Your task to perform on an android device: turn on wifi Image 0: 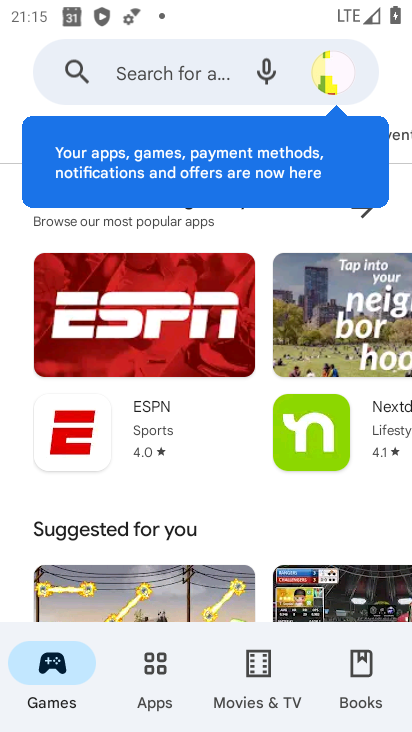
Step 0: press home button
Your task to perform on an android device: turn on wifi Image 1: 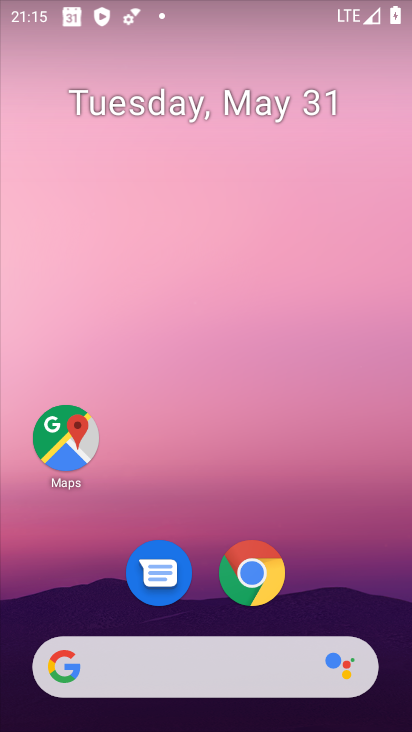
Step 1: drag from (353, 538) to (268, 171)
Your task to perform on an android device: turn on wifi Image 2: 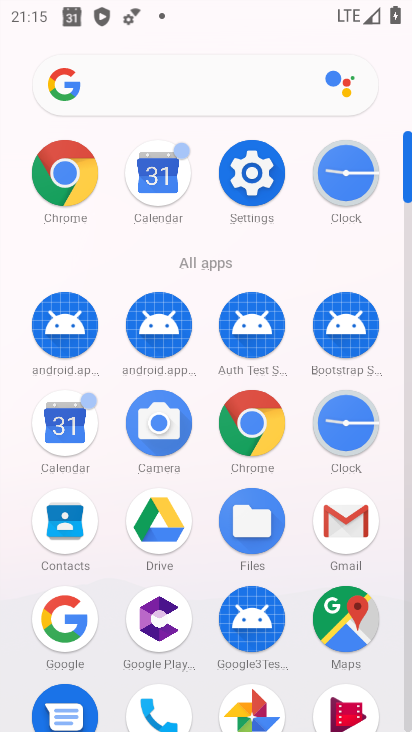
Step 2: click (268, 164)
Your task to perform on an android device: turn on wifi Image 3: 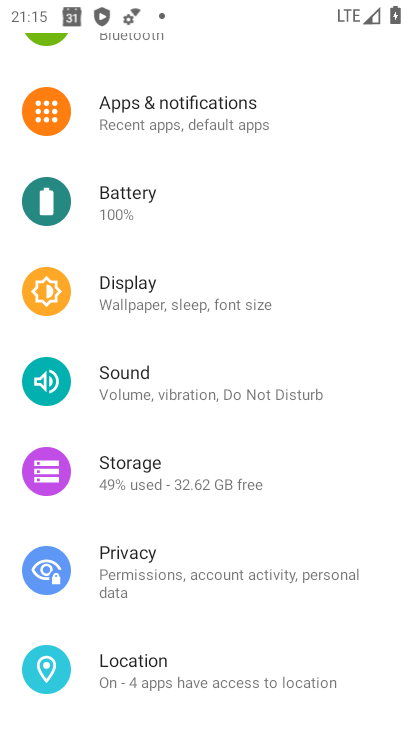
Step 3: drag from (203, 203) to (240, 543)
Your task to perform on an android device: turn on wifi Image 4: 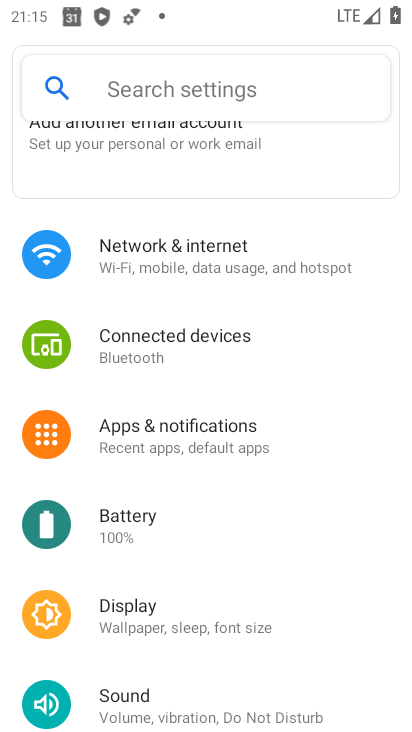
Step 4: click (171, 259)
Your task to perform on an android device: turn on wifi Image 5: 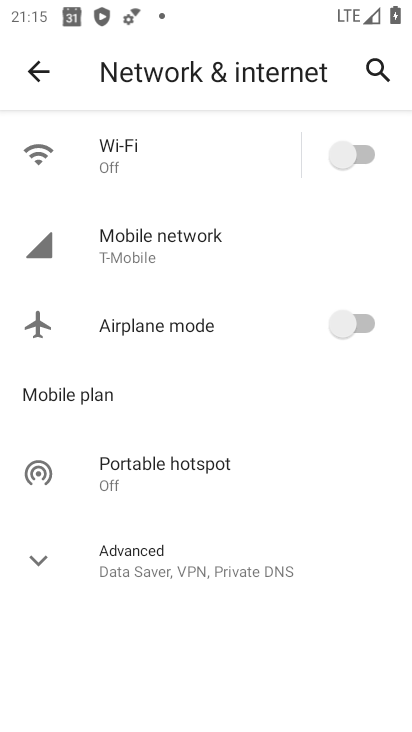
Step 5: click (346, 158)
Your task to perform on an android device: turn on wifi Image 6: 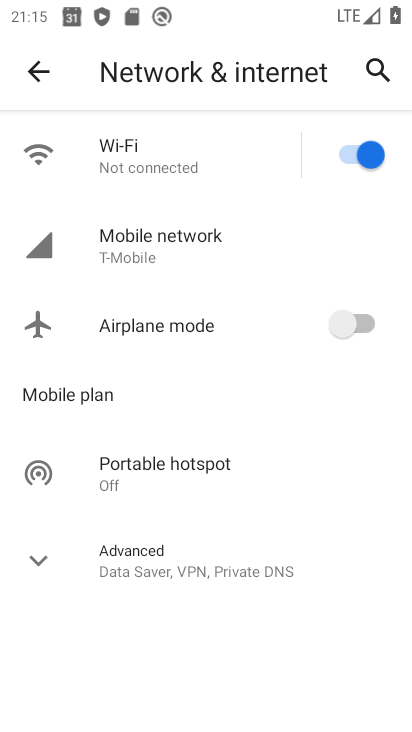
Step 6: task complete